Your task to perform on an android device: Open calendar and show me the first week of next month Image 0: 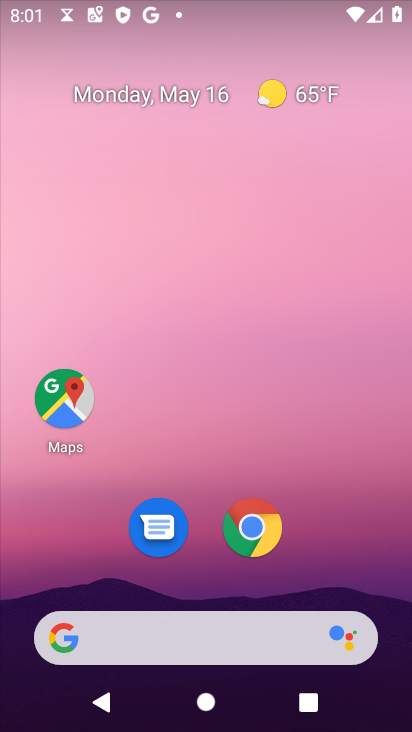
Step 0: drag from (313, 569) to (303, 120)
Your task to perform on an android device: Open calendar and show me the first week of next month Image 1: 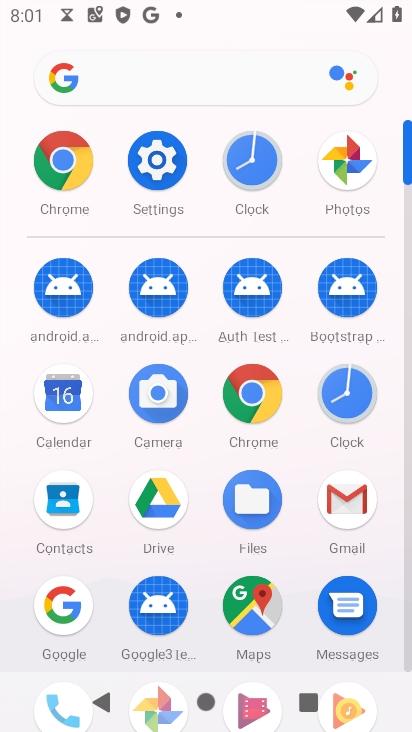
Step 1: click (58, 393)
Your task to perform on an android device: Open calendar and show me the first week of next month Image 2: 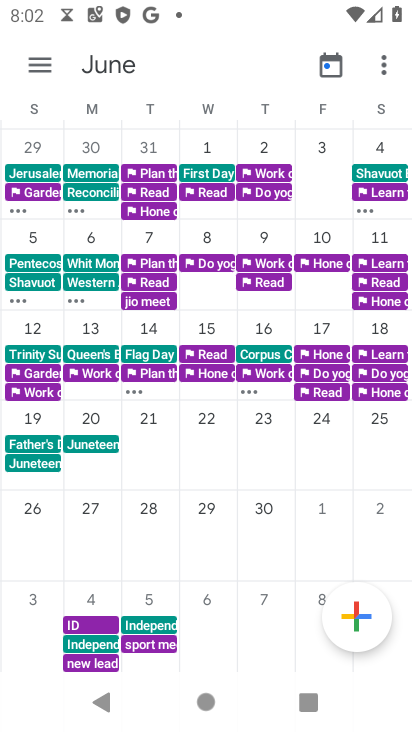
Step 2: task complete